Your task to perform on an android device: turn off smart reply in the gmail app Image 0: 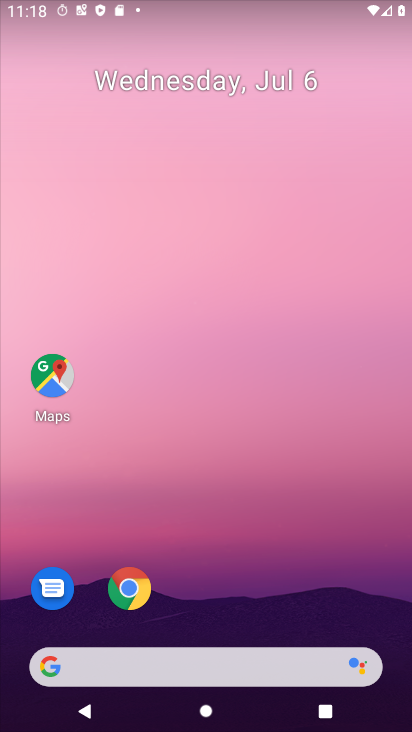
Step 0: drag from (235, 731) to (235, 122)
Your task to perform on an android device: turn off smart reply in the gmail app Image 1: 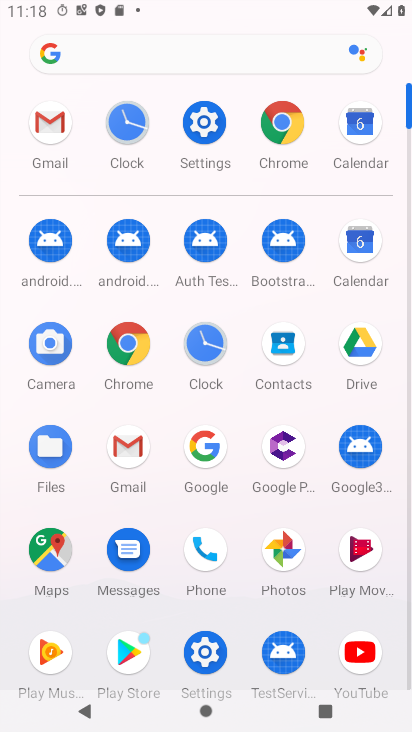
Step 1: click (124, 447)
Your task to perform on an android device: turn off smart reply in the gmail app Image 2: 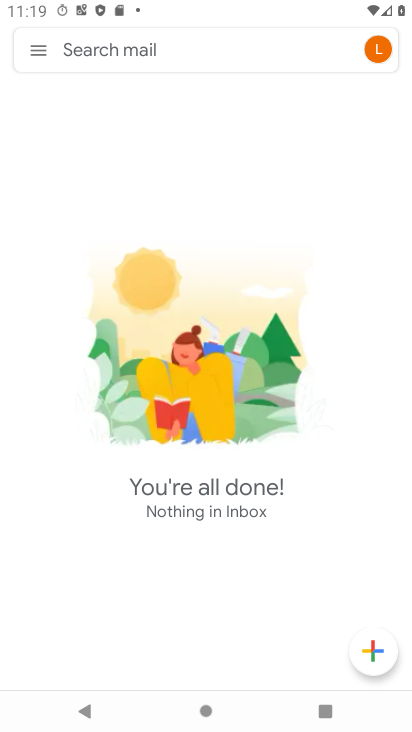
Step 2: click (40, 47)
Your task to perform on an android device: turn off smart reply in the gmail app Image 3: 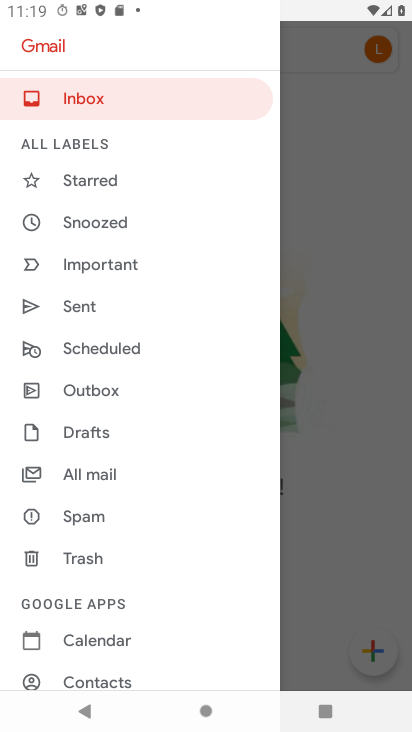
Step 3: drag from (103, 668) to (103, 602)
Your task to perform on an android device: turn off smart reply in the gmail app Image 4: 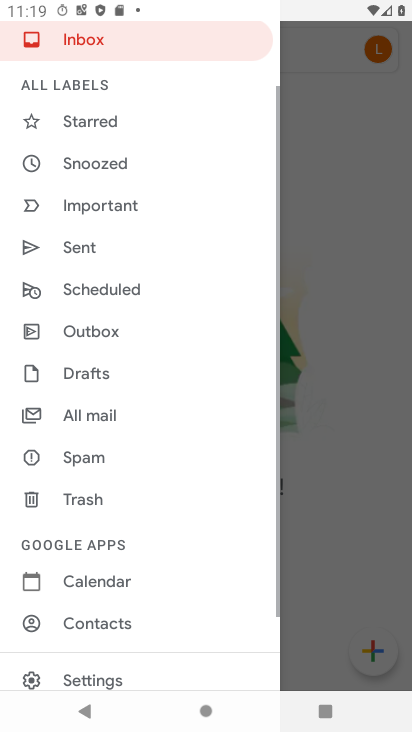
Step 4: drag from (85, 303) to (85, 264)
Your task to perform on an android device: turn off smart reply in the gmail app Image 5: 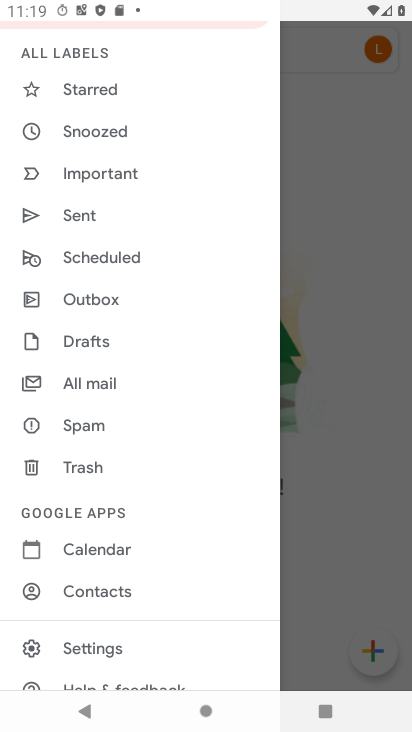
Step 5: click (104, 642)
Your task to perform on an android device: turn off smart reply in the gmail app Image 6: 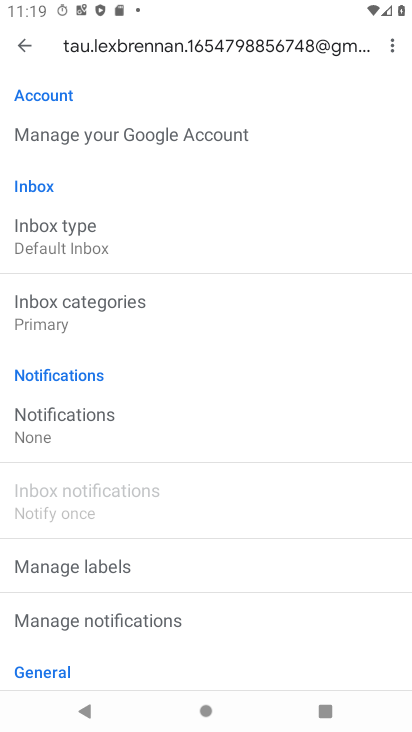
Step 6: drag from (109, 644) to (109, 560)
Your task to perform on an android device: turn off smart reply in the gmail app Image 7: 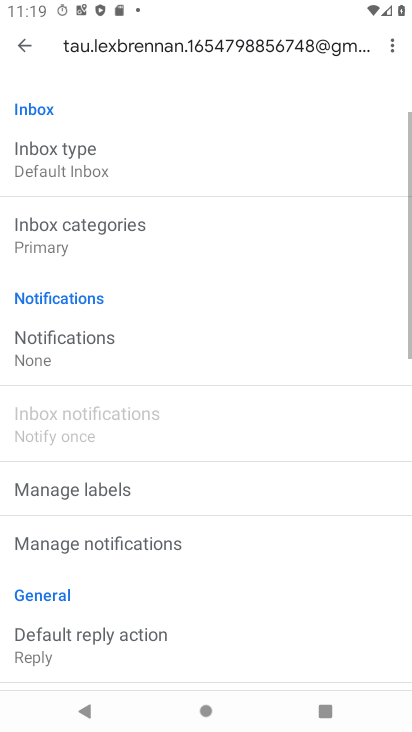
Step 7: drag from (117, 390) to (117, 280)
Your task to perform on an android device: turn off smart reply in the gmail app Image 8: 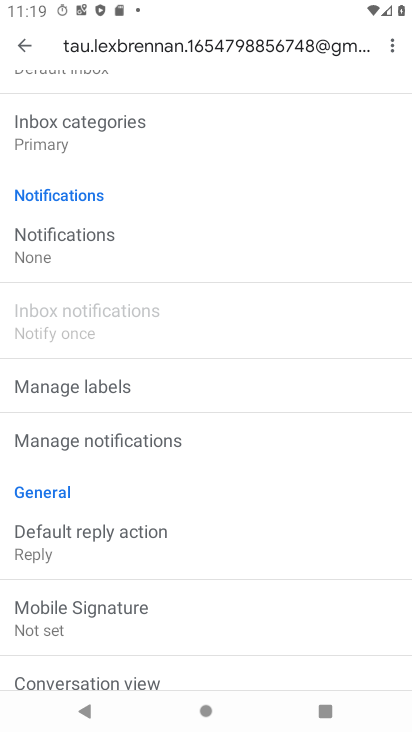
Step 8: drag from (253, 120) to (255, 584)
Your task to perform on an android device: turn off smart reply in the gmail app Image 9: 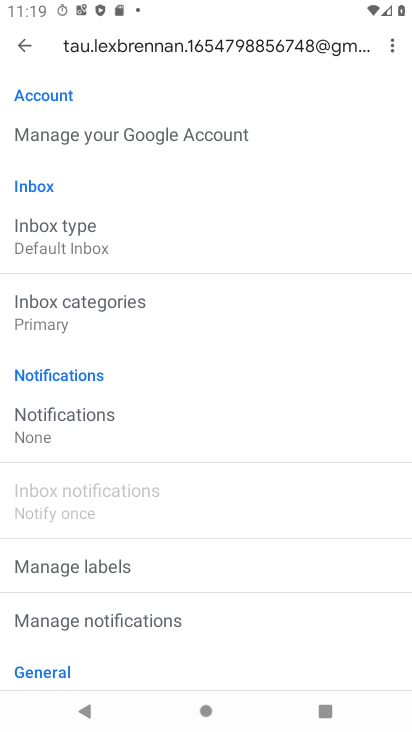
Step 9: drag from (225, 681) to (229, 571)
Your task to perform on an android device: turn off smart reply in the gmail app Image 10: 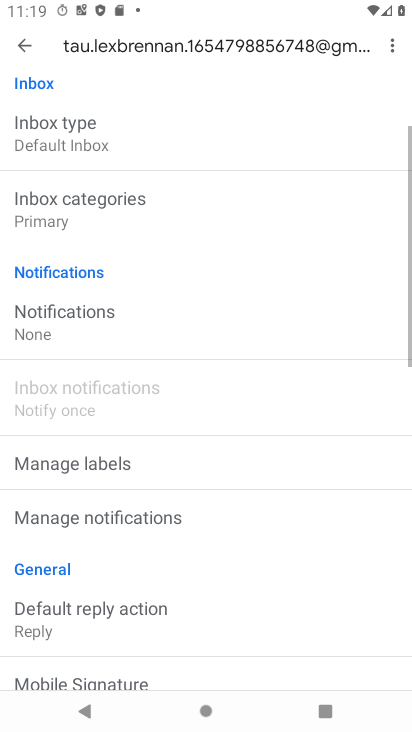
Step 10: click (234, 395)
Your task to perform on an android device: turn off smart reply in the gmail app Image 11: 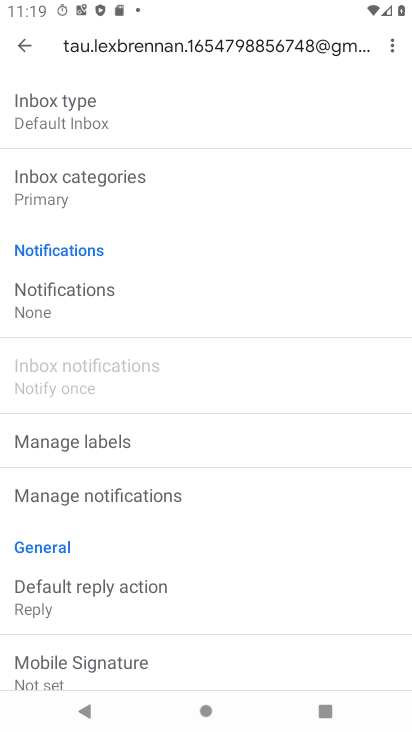
Step 11: drag from (190, 645) to (188, 195)
Your task to perform on an android device: turn off smart reply in the gmail app Image 12: 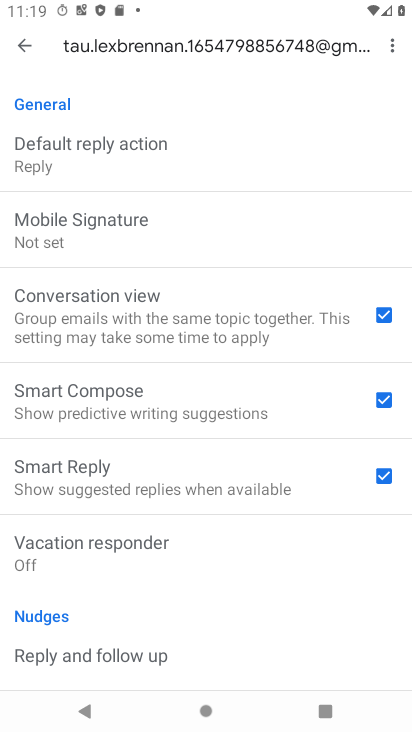
Step 12: click (383, 475)
Your task to perform on an android device: turn off smart reply in the gmail app Image 13: 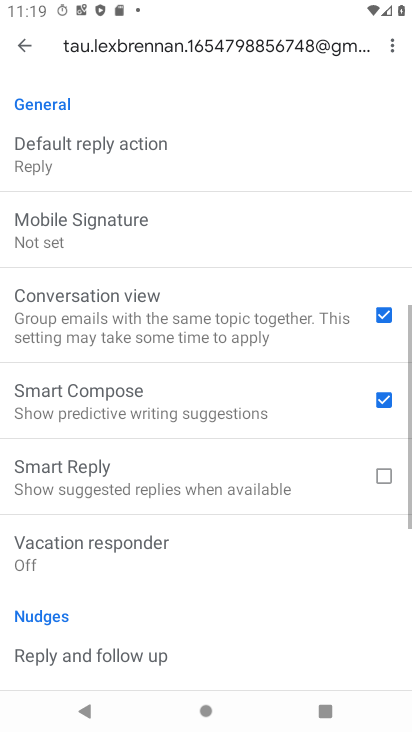
Step 13: task complete